Your task to perform on an android device: Open Youtube and go to "Your channel" Image 0: 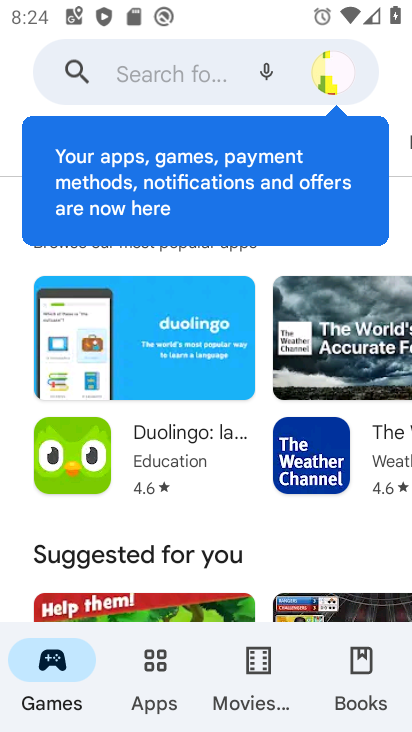
Step 0: press home button
Your task to perform on an android device: Open Youtube and go to "Your channel" Image 1: 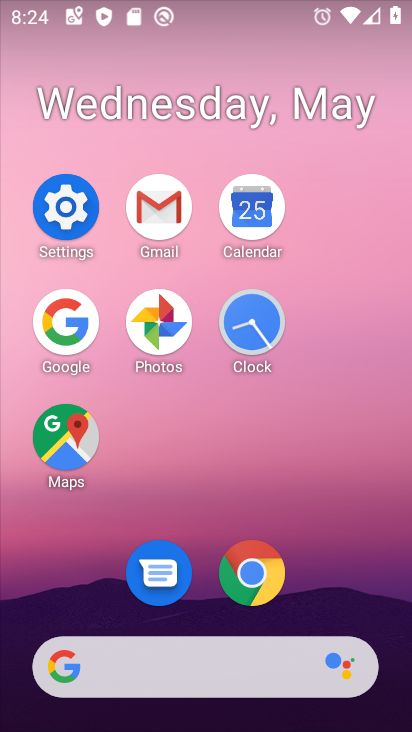
Step 1: drag from (380, 496) to (339, 143)
Your task to perform on an android device: Open Youtube and go to "Your channel" Image 2: 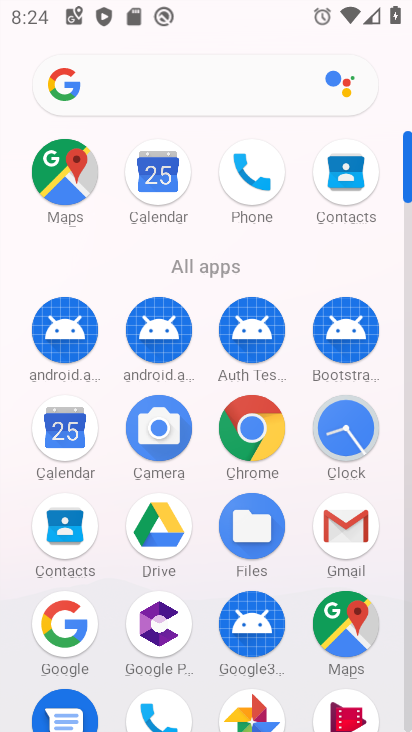
Step 2: drag from (244, 539) to (254, 159)
Your task to perform on an android device: Open Youtube and go to "Your channel" Image 3: 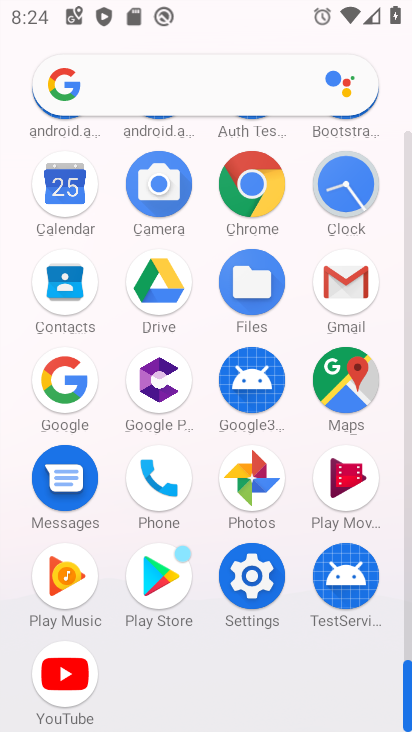
Step 3: click (69, 654)
Your task to perform on an android device: Open Youtube and go to "Your channel" Image 4: 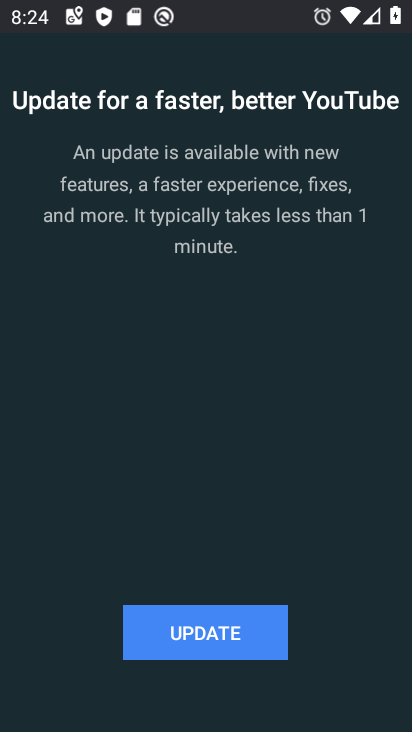
Step 4: click (224, 623)
Your task to perform on an android device: Open Youtube and go to "Your channel" Image 5: 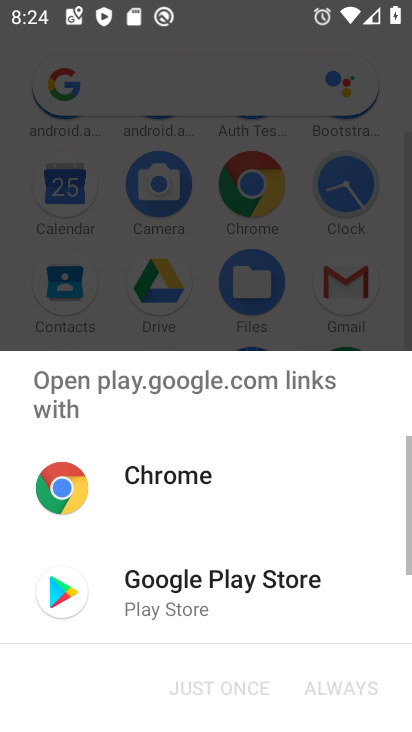
Step 5: click (217, 591)
Your task to perform on an android device: Open Youtube and go to "Your channel" Image 6: 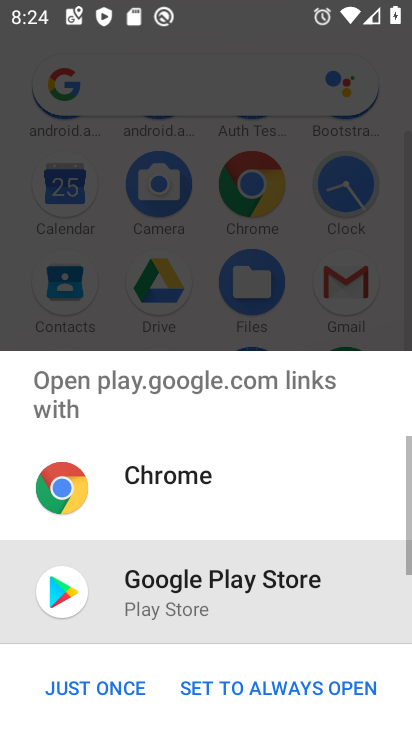
Step 6: click (217, 591)
Your task to perform on an android device: Open Youtube and go to "Your channel" Image 7: 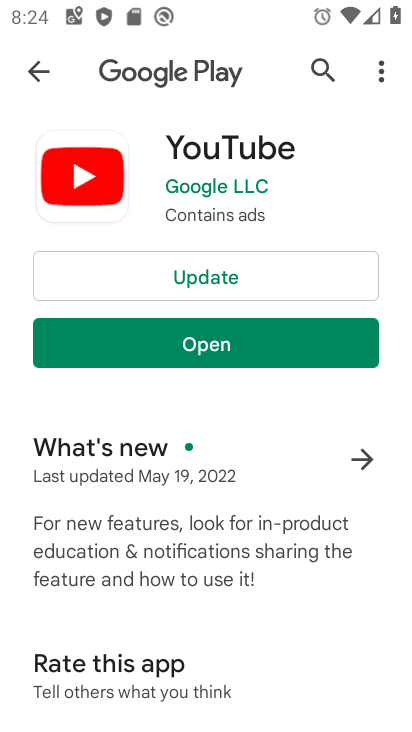
Step 7: click (230, 281)
Your task to perform on an android device: Open Youtube and go to "Your channel" Image 8: 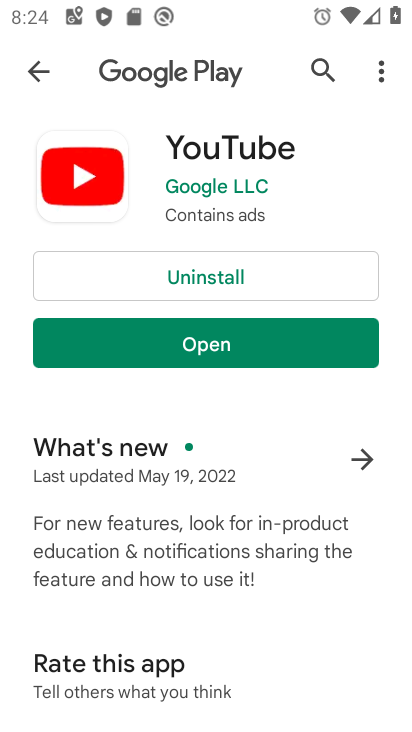
Step 8: click (208, 341)
Your task to perform on an android device: Open Youtube and go to "Your channel" Image 9: 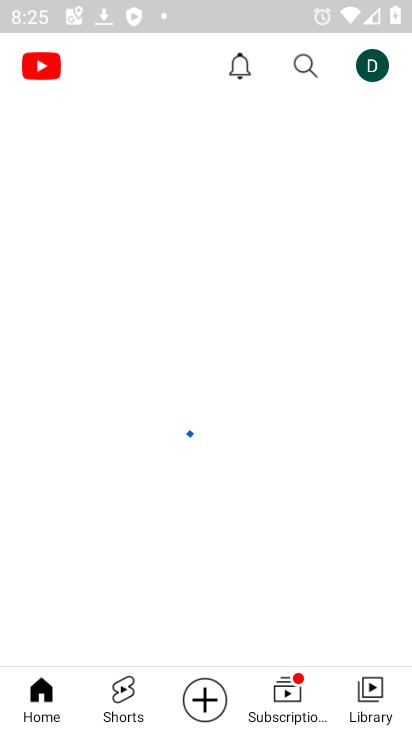
Step 9: click (373, 62)
Your task to perform on an android device: Open Youtube and go to "Your channel" Image 10: 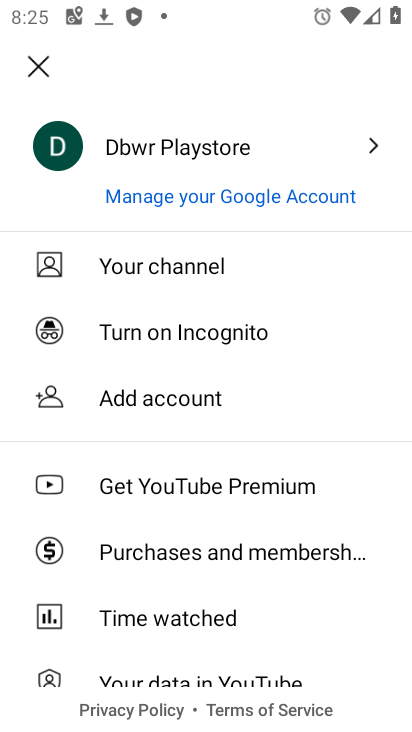
Step 10: click (203, 281)
Your task to perform on an android device: Open Youtube and go to "Your channel" Image 11: 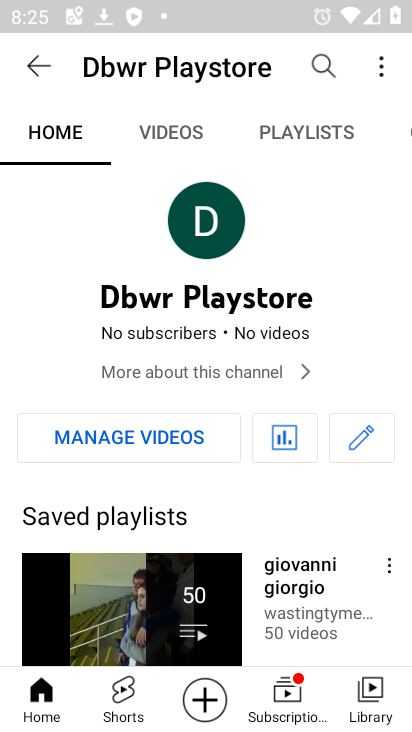
Step 11: task complete